Your task to perform on an android device: Show me the alarms in the clock app Image 0: 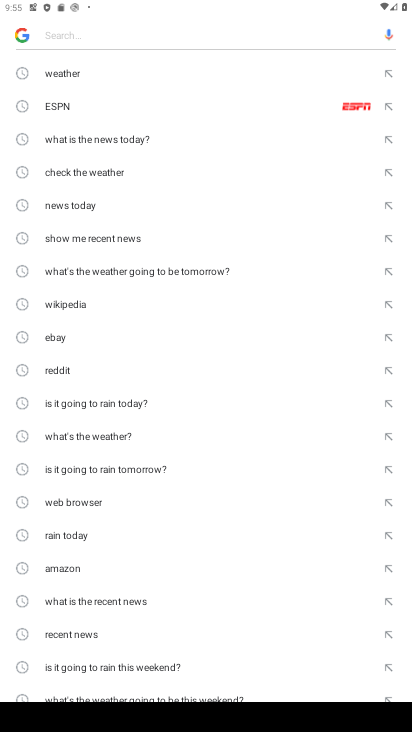
Step 0: press home button
Your task to perform on an android device: Show me the alarms in the clock app Image 1: 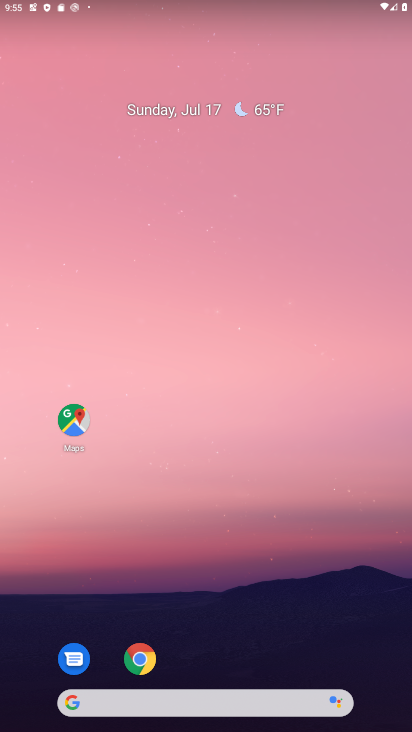
Step 1: drag from (249, 649) to (222, 108)
Your task to perform on an android device: Show me the alarms in the clock app Image 2: 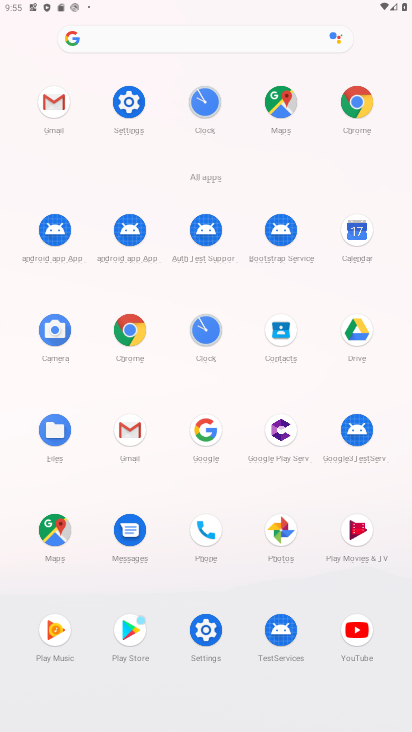
Step 2: click (216, 101)
Your task to perform on an android device: Show me the alarms in the clock app Image 3: 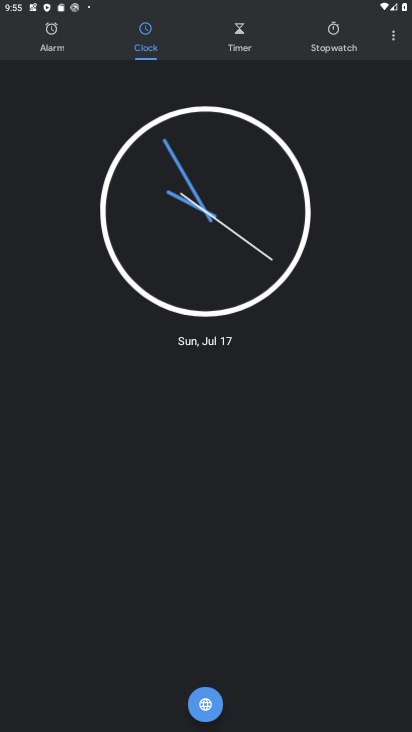
Step 3: click (75, 38)
Your task to perform on an android device: Show me the alarms in the clock app Image 4: 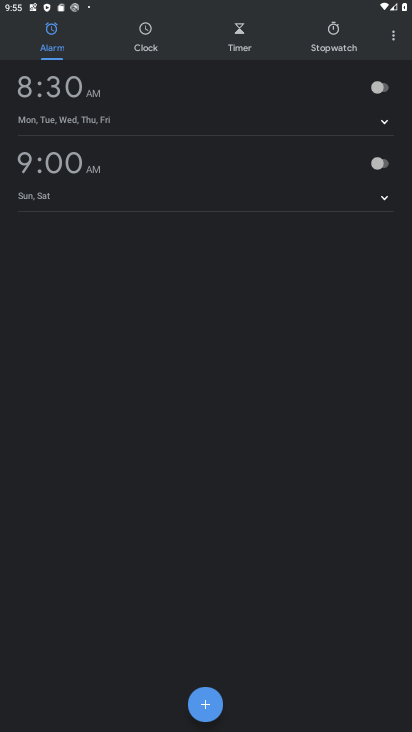
Step 4: task complete